Your task to perform on an android device: Search for Italian restaurants on Maps Image 0: 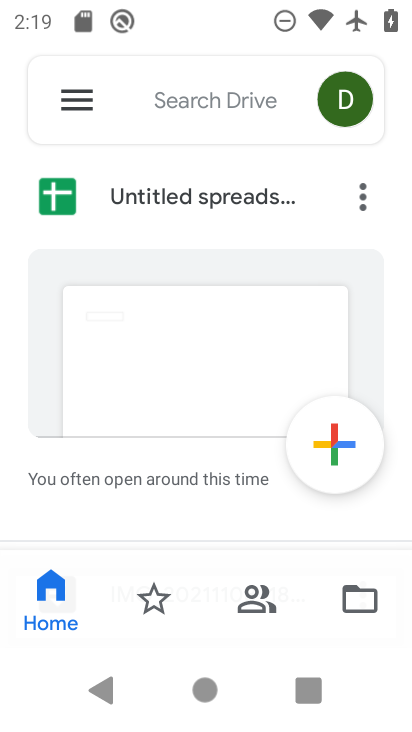
Step 0: press home button
Your task to perform on an android device: Search for Italian restaurants on Maps Image 1: 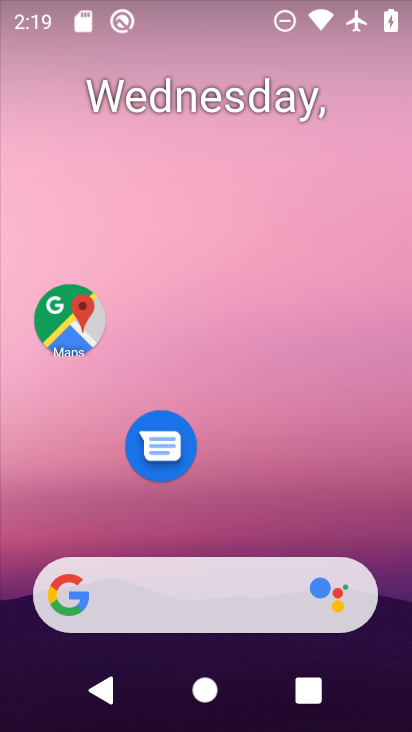
Step 1: click (85, 315)
Your task to perform on an android device: Search for Italian restaurants on Maps Image 2: 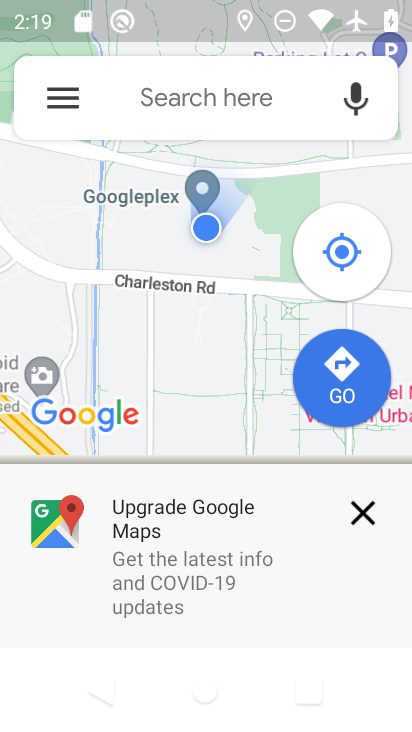
Step 2: click (209, 102)
Your task to perform on an android device: Search for Italian restaurants on Maps Image 3: 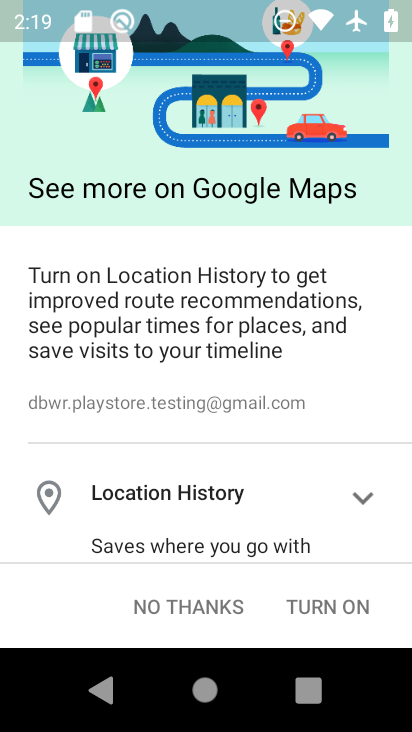
Step 3: click (330, 601)
Your task to perform on an android device: Search for Italian restaurants on Maps Image 4: 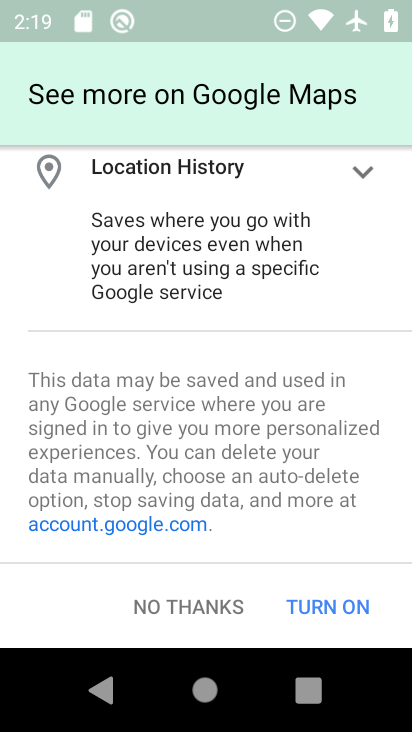
Step 4: click (330, 601)
Your task to perform on an android device: Search for Italian restaurants on Maps Image 5: 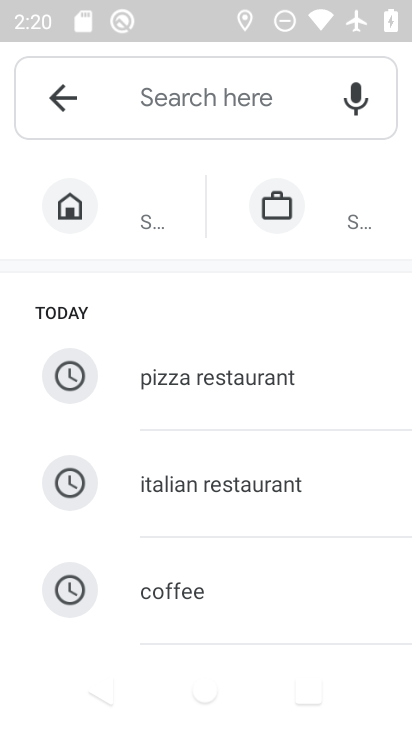
Step 5: click (273, 532)
Your task to perform on an android device: Search for Italian restaurants on Maps Image 6: 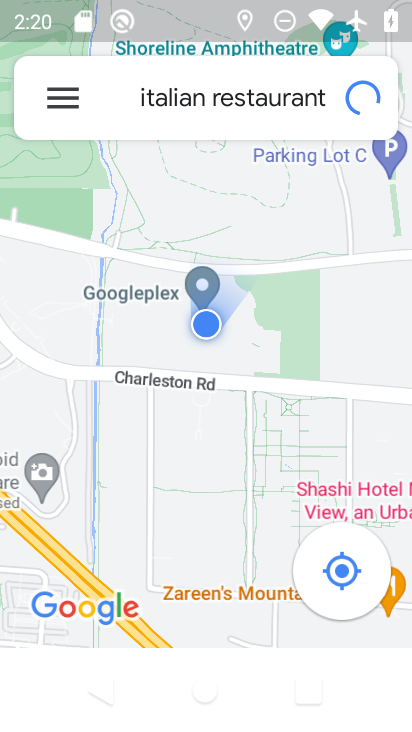
Step 6: task complete